Your task to perform on an android device: set default search engine in the chrome app Image 0: 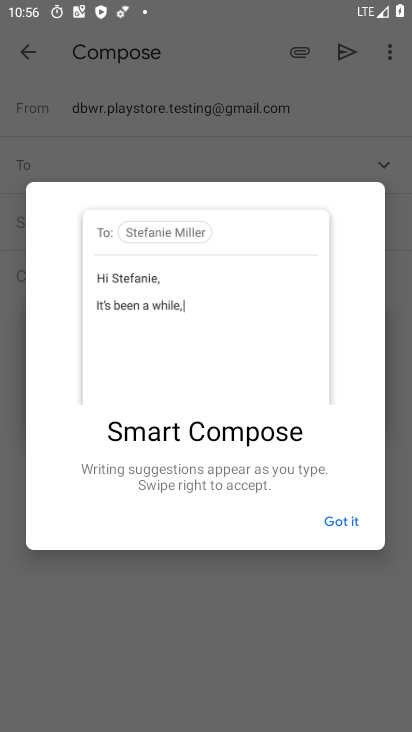
Step 0: press home button
Your task to perform on an android device: set default search engine in the chrome app Image 1: 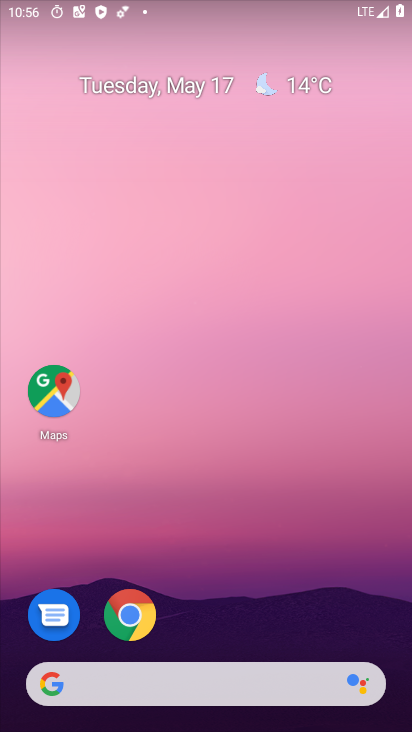
Step 1: drag from (129, 683) to (245, 220)
Your task to perform on an android device: set default search engine in the chrome app Image 2: 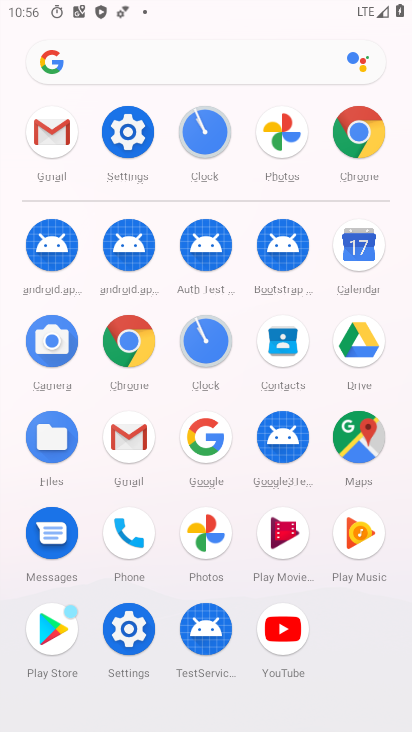
Step 2: click (364, 144)
Your task to perform on an android device: set default search engine in the chrome app Image 3: 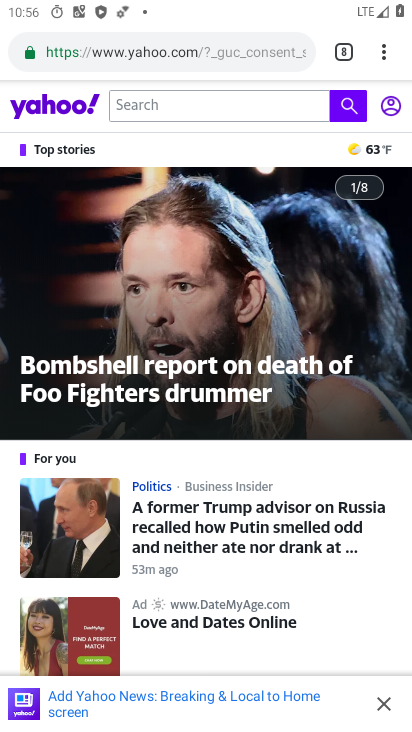
Step 3: drag from (385, 50) to (195, 637)
Your task to perform on an android device: set default search engine in the chrome app Image 4: 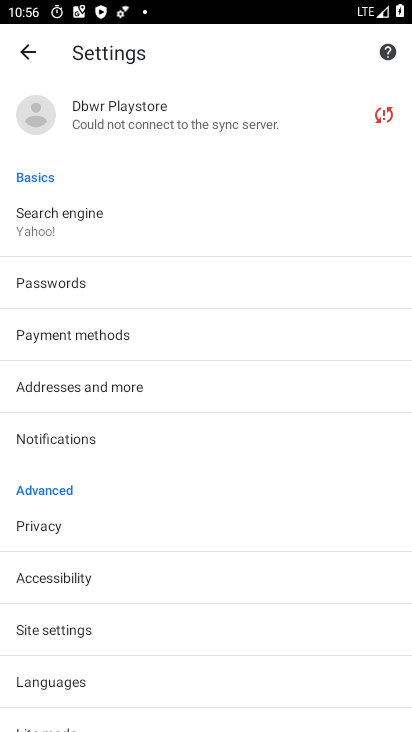
Step 4: click (90, 209)
Your task to perform on an android device: set default search engine in the chrome app Image 5: 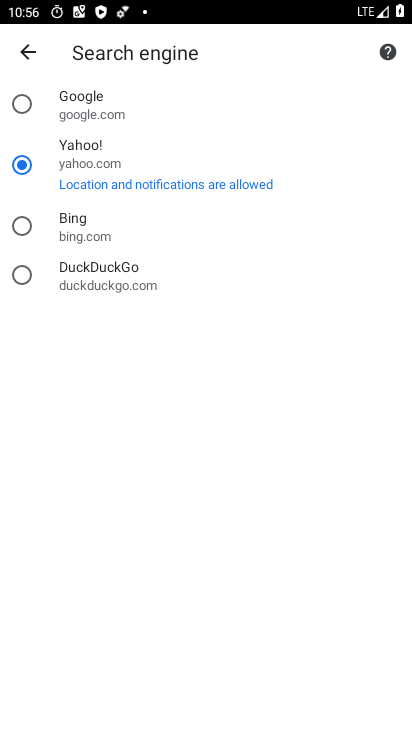
Step 5: click (24, 105)
Your task to perform on an android device: set default search engine in the chrome app Image 6: 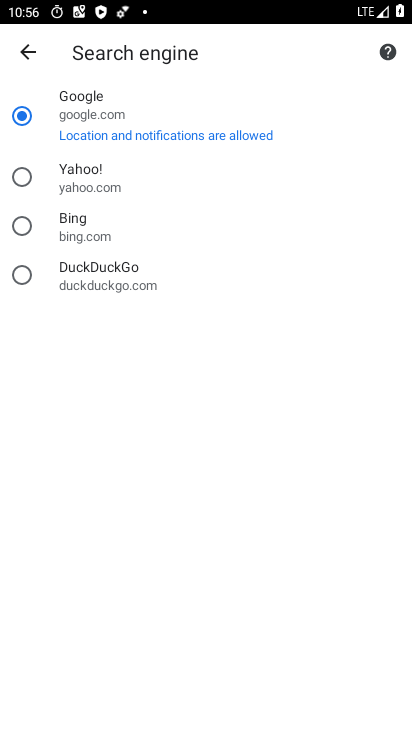
Step 6: task complete